Your task to perform on an android device: remove spam from my inbox in the gmail app Image 0: 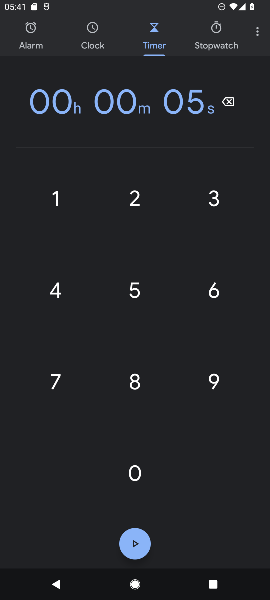
Step 0: press home button
Your task to perform on an android device: remove spam from my inbox in the gmail app Image 1: 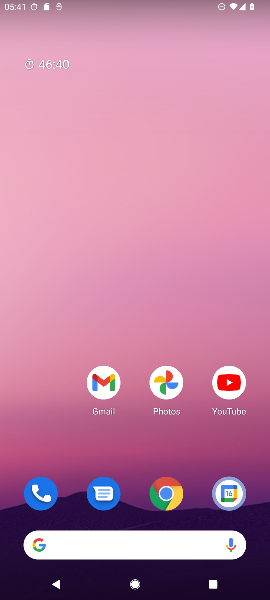
Step 1: drag from (61, 434) to (67, 79)
Your task to perform on an android device: remove spam from my inbox in the gmail app Image 2: 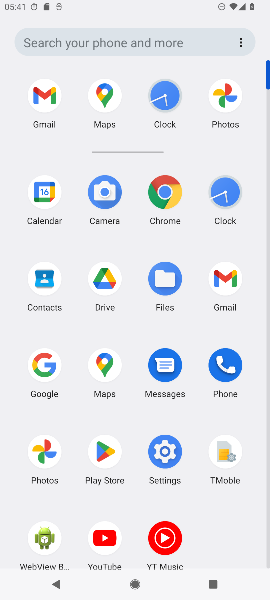
Step 2: click (226, 274)
Your task to perform on an android device: remove spam from my inbox in the gmail app Image 3: 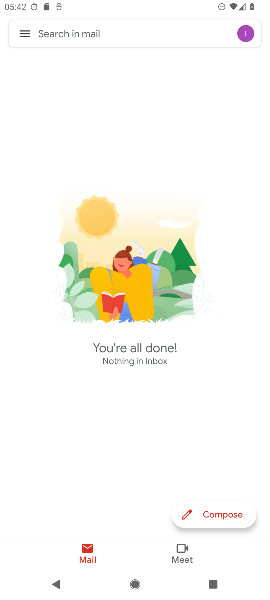
Step 3: click (23, 30)
Your task to perform on an android device: remove spam from my inbox in the gmail app Image 4: 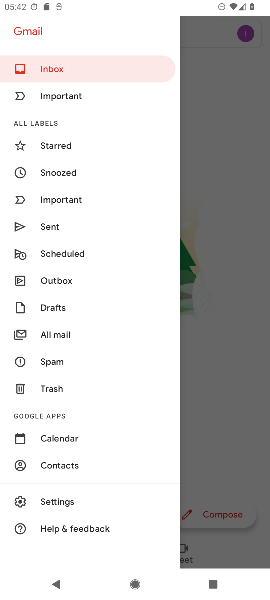
Step 4: click (60, 362)
Your task to perform on an android device: remove spam from my inbox in the gmail app Image 5: 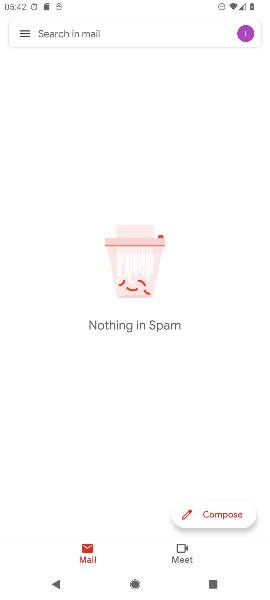
Step 5: task complete